Your task to perform on an android device: Turn on the flashlight Image 0: 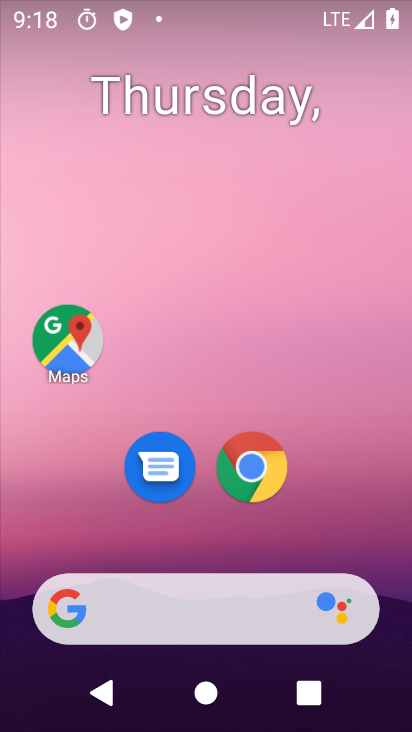
Step 0: drag from (258, 7) to (331, 515)
Your task to perform on an android device: Turn on the flashlight Image 1: 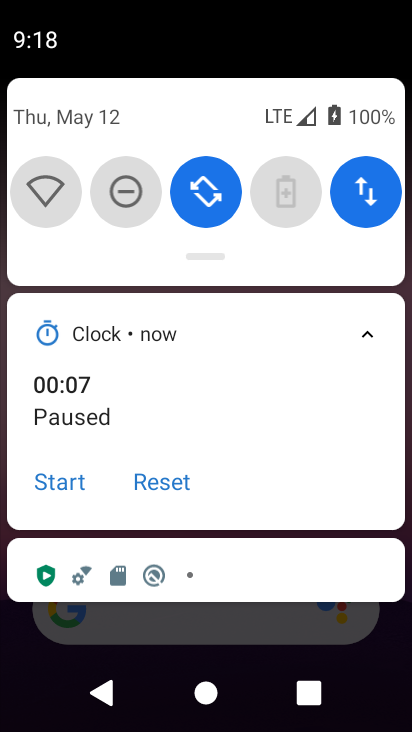
Step 1: task complete